Your task to perform on an android device: What's on my calendar tomorrow? Image 0: 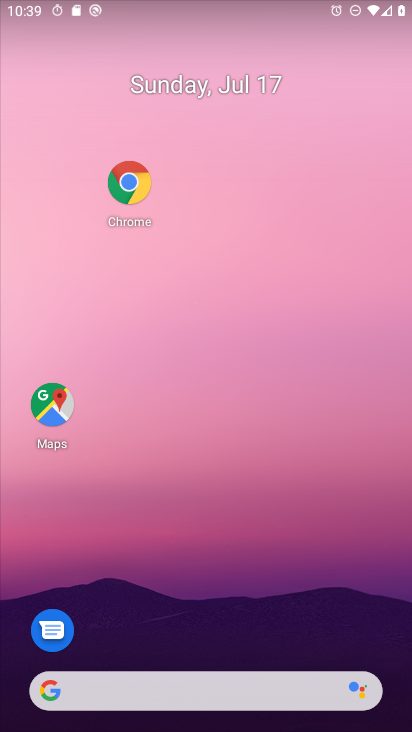
Step 0: drag from (307, 618) to (331, 233)
Your task to perform on an android device: What's on my calendar tomorrow? Image 1: 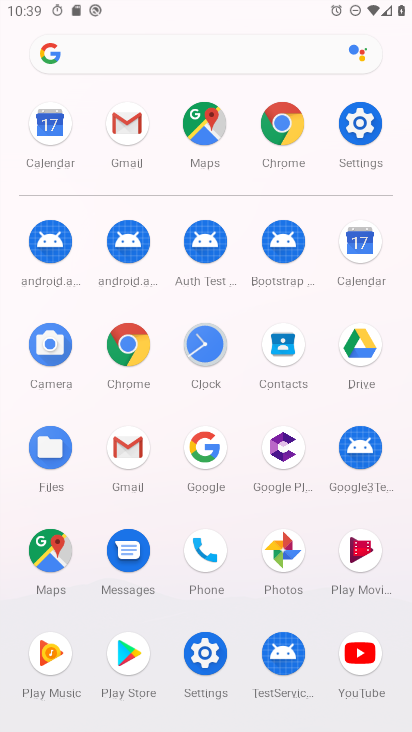
Step 1: click (356, 231)
Your task to perform on an android device: What's on my calendar tomorrow? Image 2: 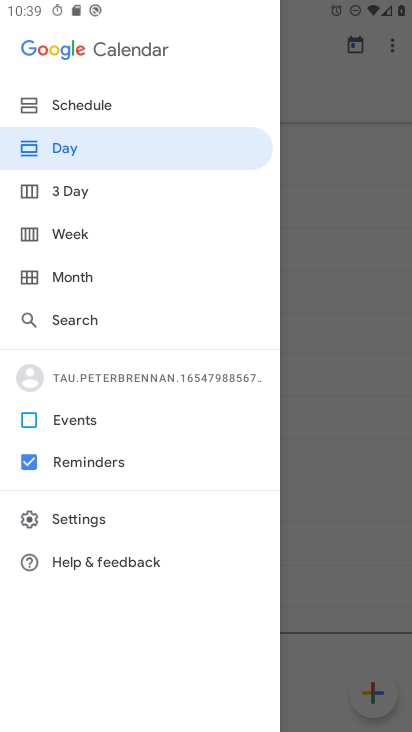
Step 2: click (136, 150)
Your task to perform on an android device: What's on my calendar tomorrow? Image 3: 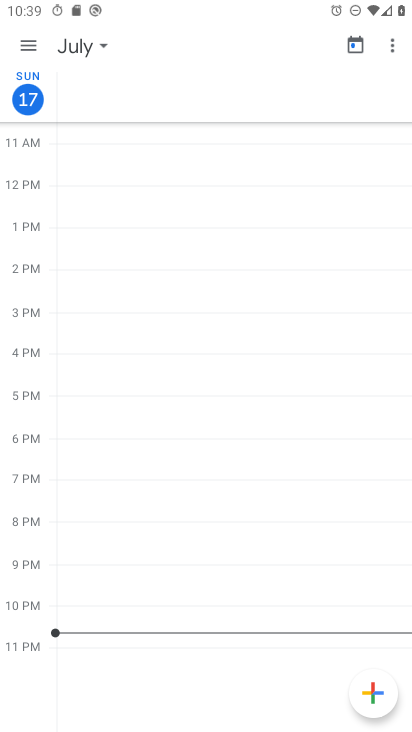
Step 3: click (31, 44)
Your task to perform on an android device: What's on my calendar tomorrow? Image 4: 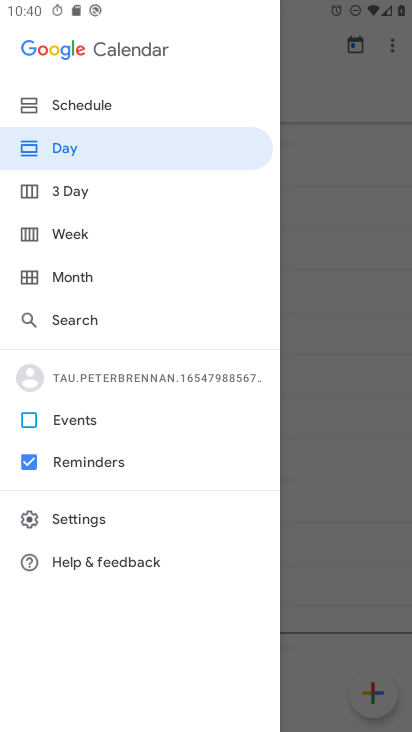
Step 4: click (98, 281)
Your task to perform on an android device: What's on my calendar tomorrow? Image 5: 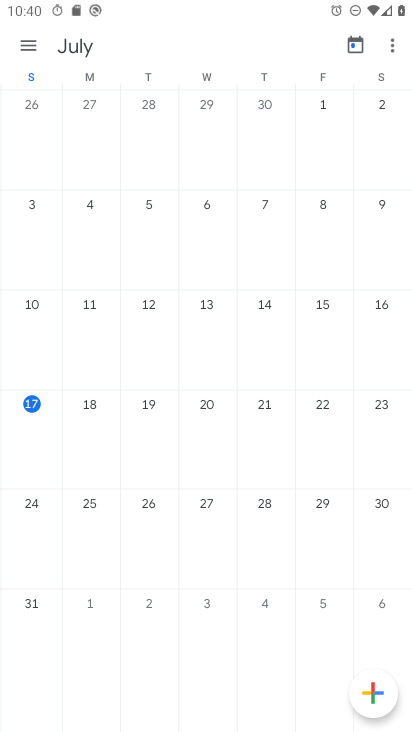
Step 5: click (149, 423)
Your task to perform on an android device: What's on my calendar tomorrow? Image 6: 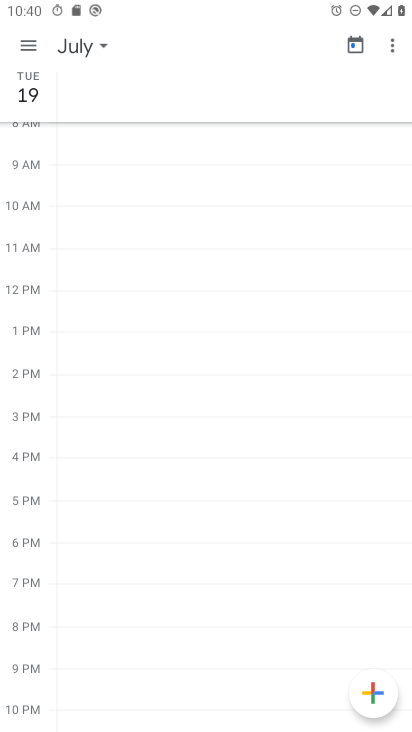
Step 6: task complete